Your task to perform on an android device: Open wifi settings Image 0: 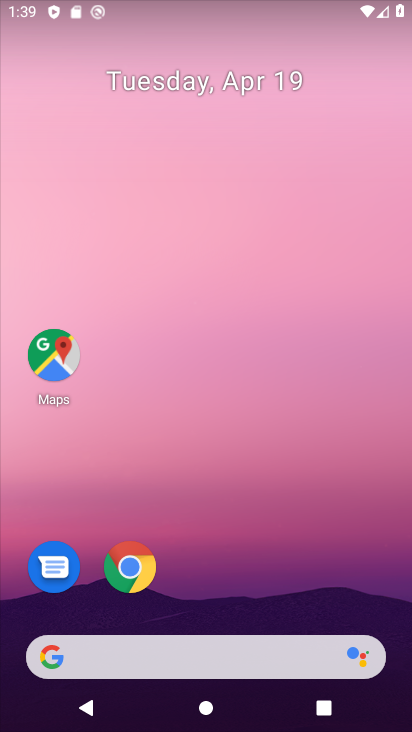
Step 0: drag from (240, 393) to (245, 126)
Your task to perform on an android device: Open wifi settings Image 1: 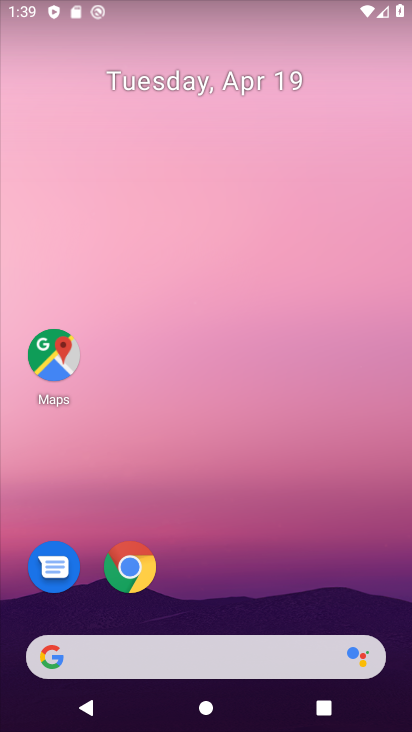
Step 1: drag from (225, 579) to (271, 191)
Your task to perform on an android device: Open wifi settings Image 2: 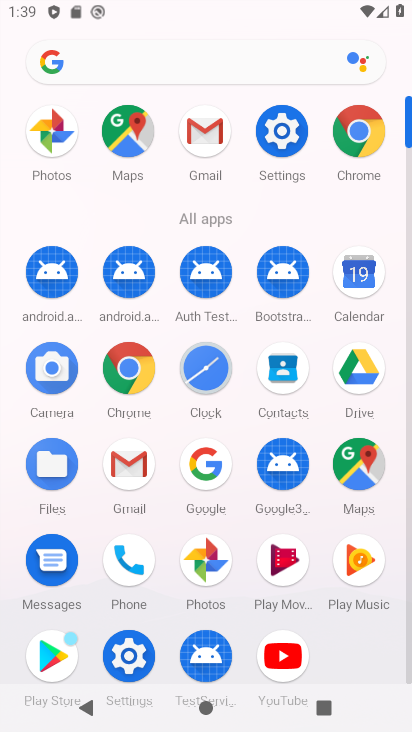
Step 2: click (281, 133)
Your task to perform on an android device: Open wifi settings Image 3: 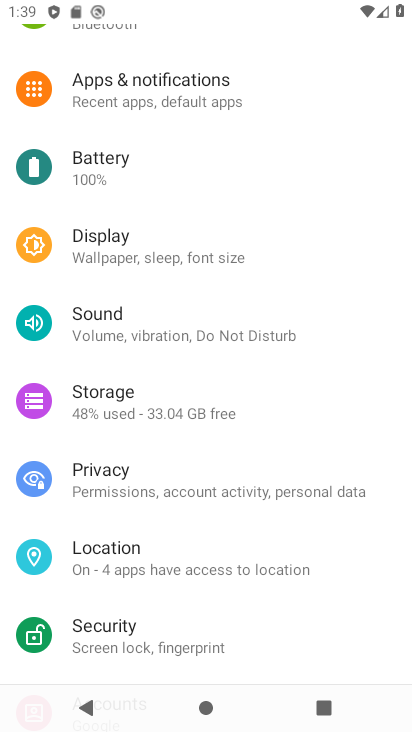
Step 3: drag from (231, 258) to (218, 565)
Your task to perform on an android device: Open wifi settings Image 4: 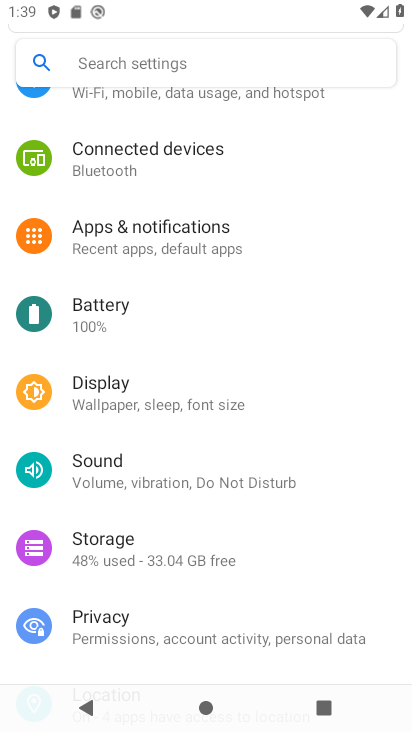
Step 4: click (126, 94)
Your task to perform on an android device: Open wifi settings Image 5: 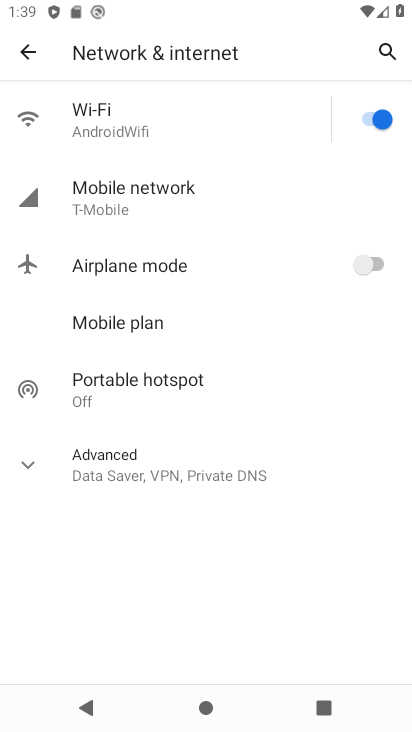
Step 5: click (167, 124)
Your task to perform on an android device: Open wifi settings Image 6: 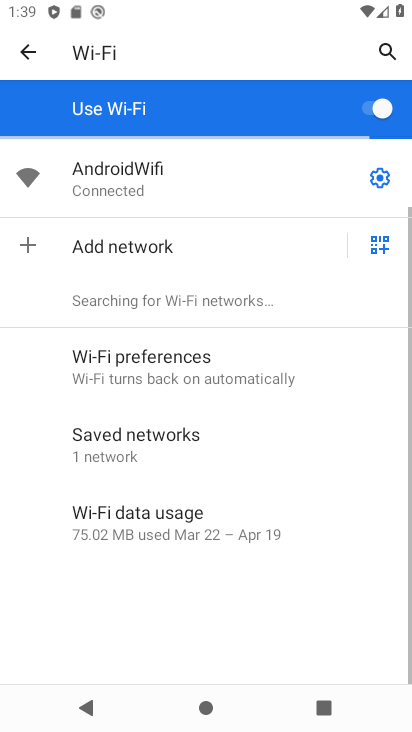
Step 6: click (374, 177)
Your task to perform on an android device: Open wifi settings Image 7: 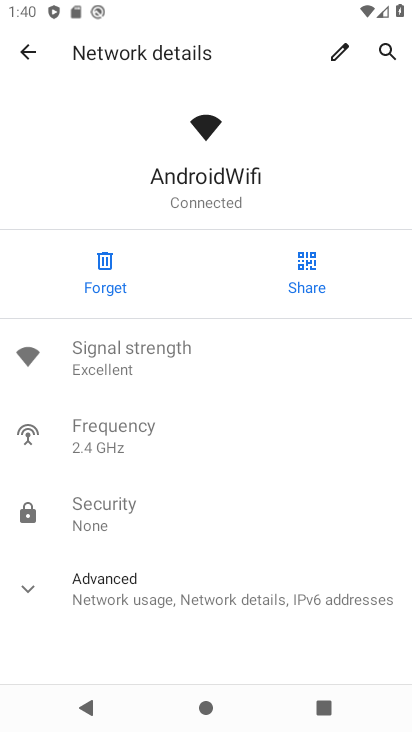
Step 7: task complete